Your task to perform on an android device: toggle javascript in the chrome app Image 0: 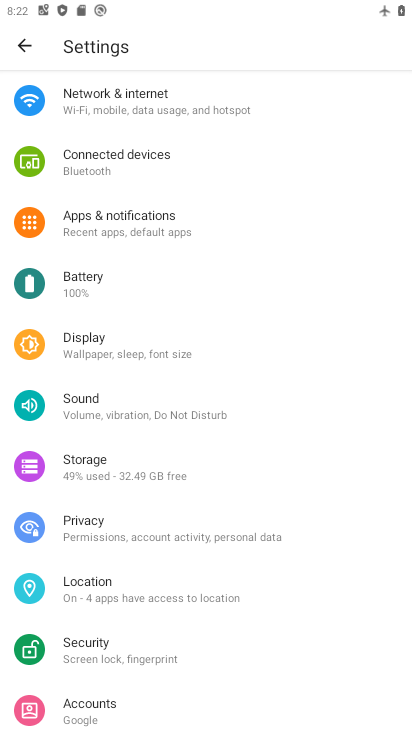
Step 0: press home button
Your task to perform on an android device: toggle javascript in the chrome app Image 1: 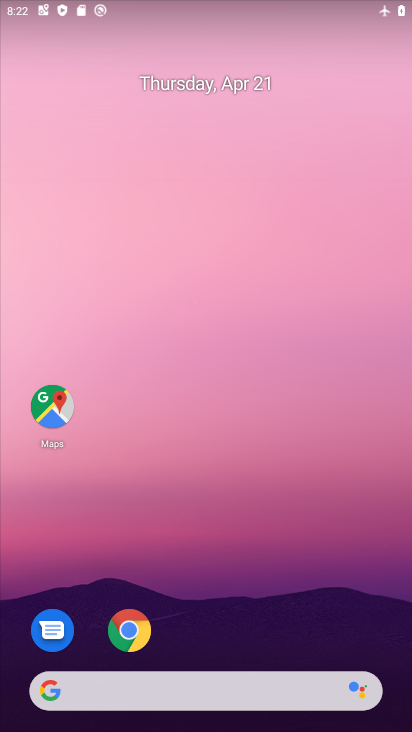
Step 1: click (120, 622)
Your task to perform on an android device: toggle javascript in the chrome app Image 2: 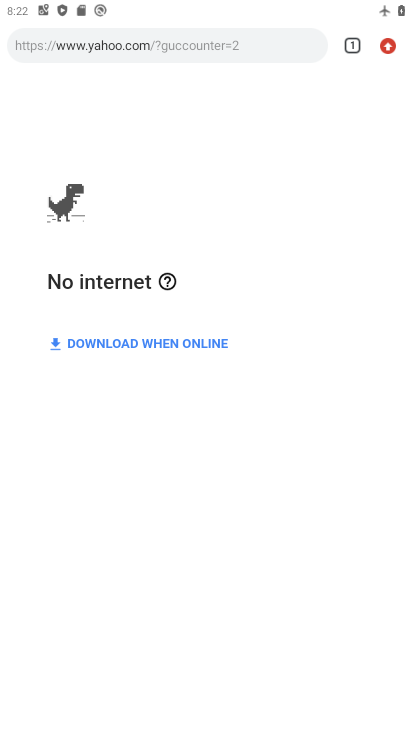
Step 2: click (385, 51)
Your task to perform on an android device: toggle javascript in the chrome app Image 3: 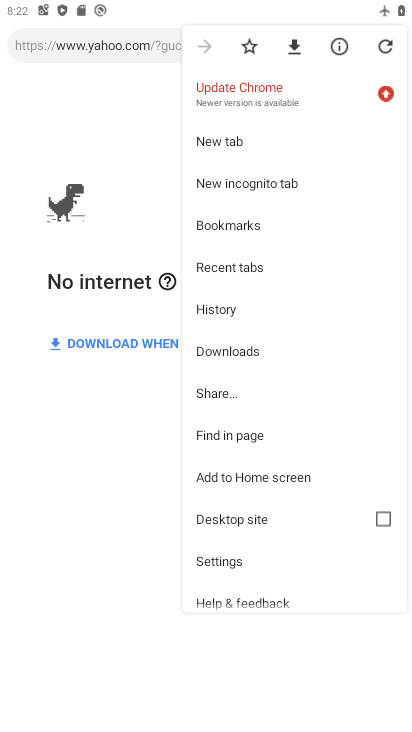
Step 3: click (220, 562)
Your task to perform on an android device: toggle javascript in the chrome app Image 4: 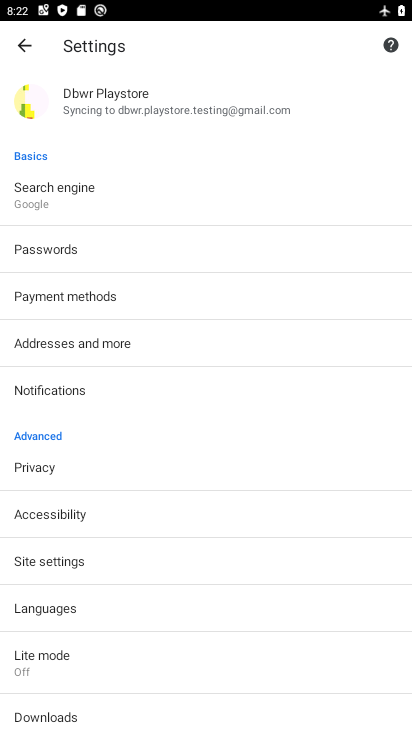
Step 4: click (70, 558)
Your task to perform on an android device: toggle javascript in the chrome app Image 5: 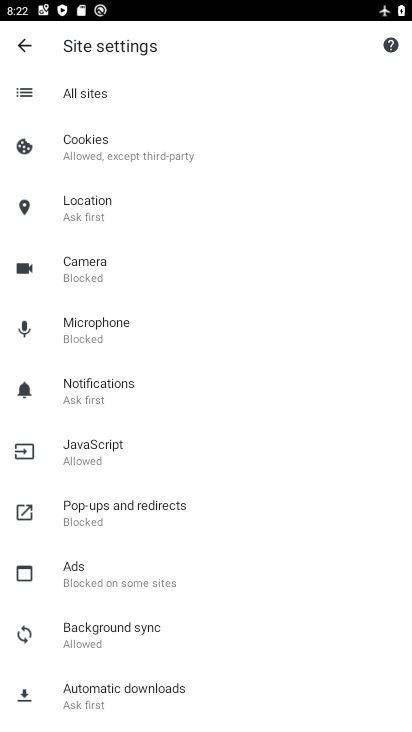
Step 5: click (86, 452)
Your task to perform on an android device: toggle javascript in the chrome app Image 6: 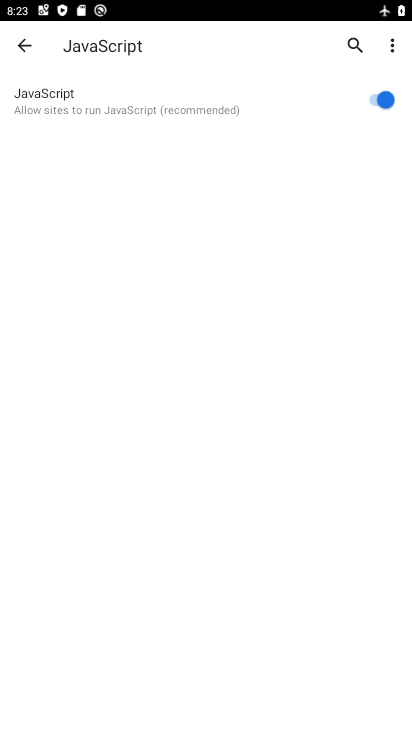
Step 6: click (370, 98)
Your task to perform on an android device: toggle javascript in the chrome app Image 7: 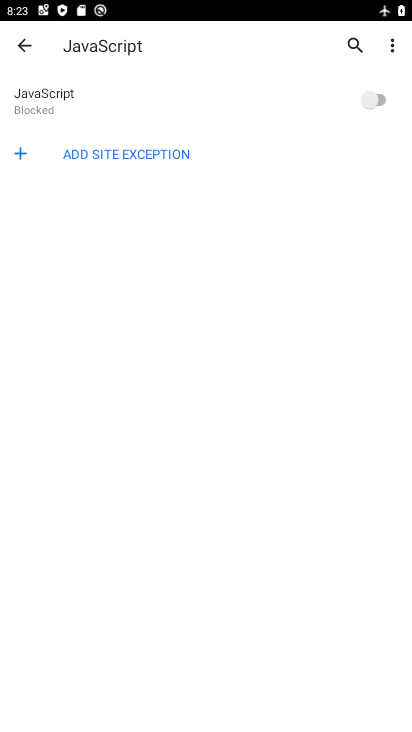
Step 7: task complete